Your task to perform on an android device: What's the weather today? Image 0: 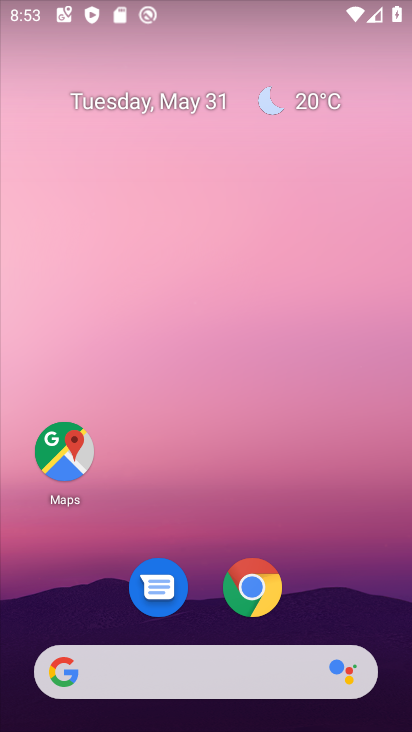
Step 0: click (306, 109)
Your task to perform on an android device: What's the weather today? Image 1: 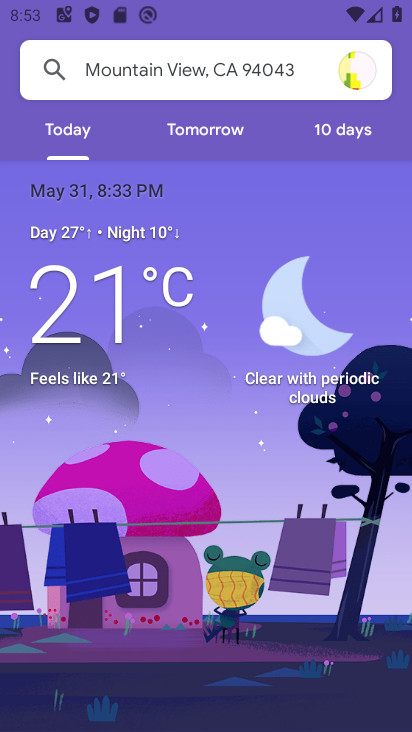
Step 1: task complete